Your task to perform on an android device: Open my contact list Image 0: 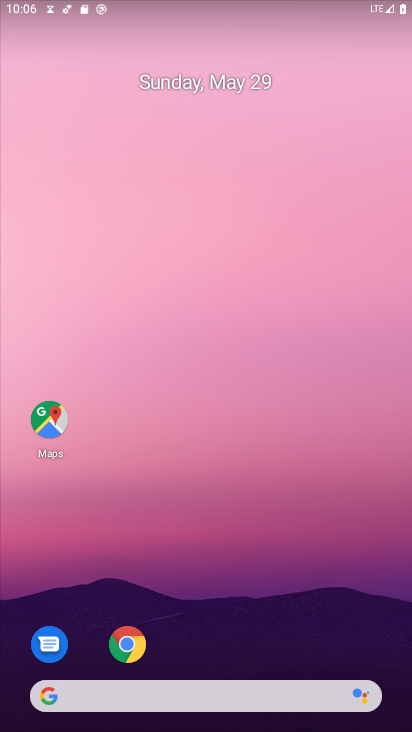
Step 0: drag from (153, 724) to (116, 118)
Your task to perform on an android device: Open my contact list Image 1: 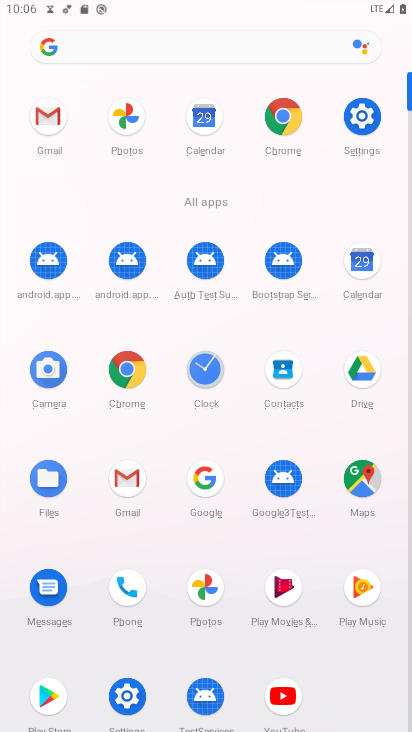
Step 1: click (290, 376)
Your task to perform on an android device: Open my contact list Image 2: 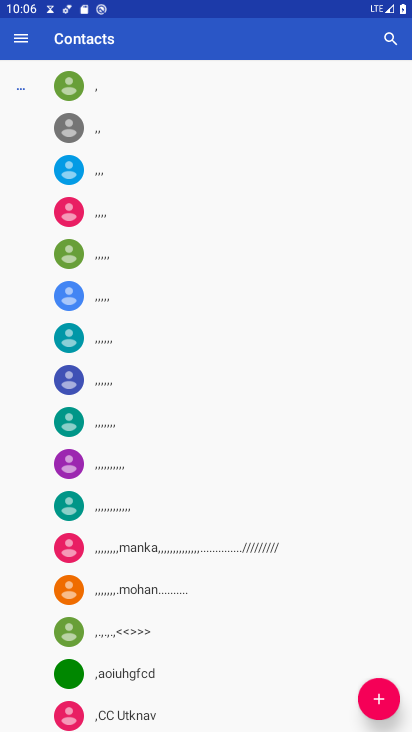
Step 2: drag from (350, 569) to (310, 140)
Your task to perform on an android device: Open my contact list Image 3: 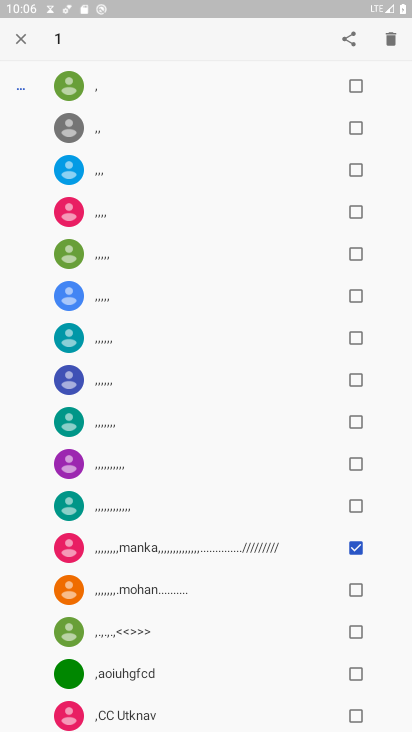
Step 3: click (356, 546)
Your task to perform on an android device: Open my contact list Image 4: 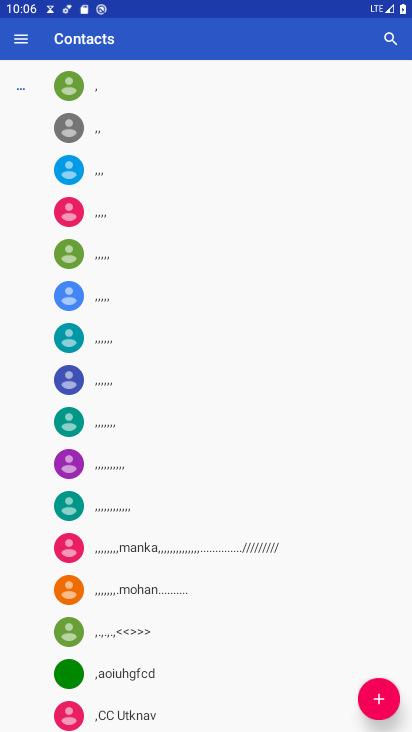
Step 4: drag from (133, 637) to (126, 110)
Your task to perform on an android device: Open my contact list Image 5: 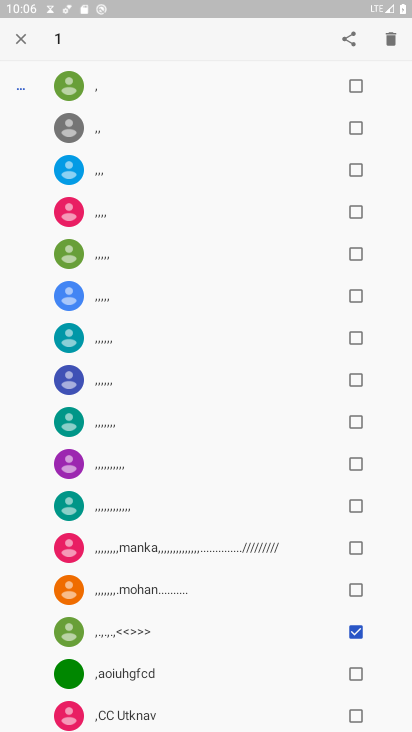
Step 5: click (19, 43)
Your task to perform on an android device: Open my contact list Image 6: 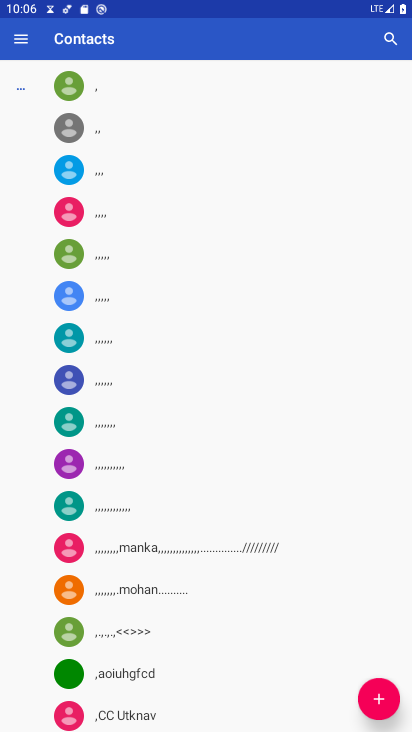
Step 6: task complete